Your task to perform on an android device: change the clock display to show seconds Image 0: 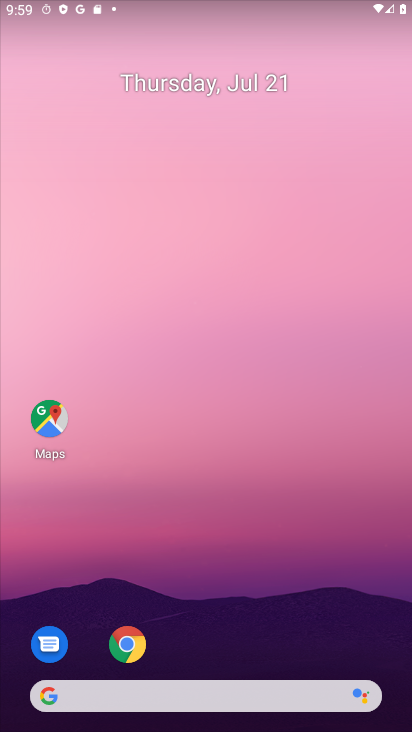
Step 0: press home button
Your task to perform on an android device: change the clock display to show seconds Image 1: 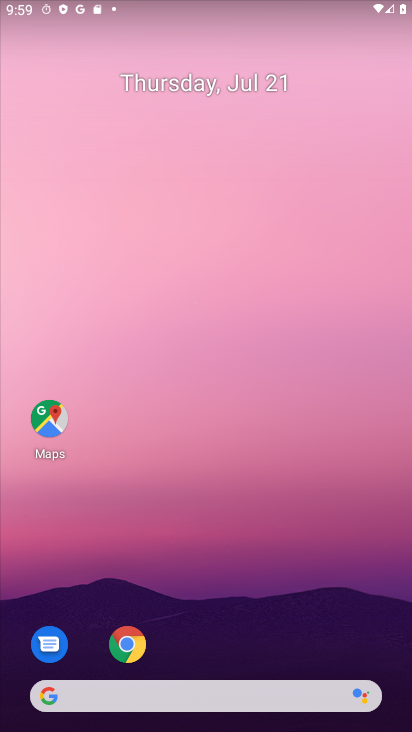
Step 1: drag from (221, 651) to (230, 100)
Your task to perform on an android device: change the clock display to show seconds Image 2: 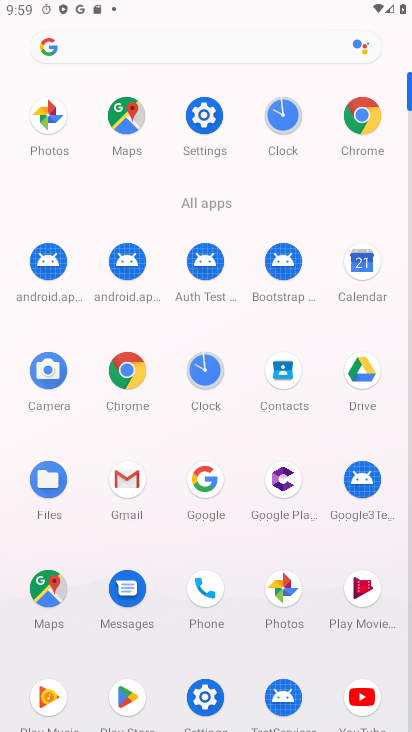
Step 2: click (278, 107)
Your task to perform on an android device: change the clock display to show seconds Image 3: 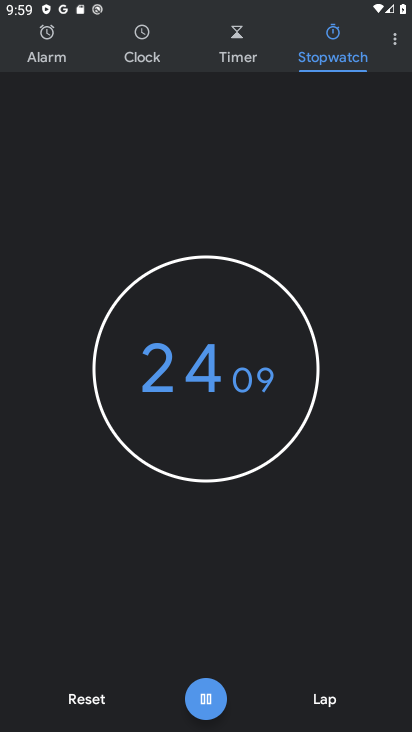
Step 3: click (92, 698)
Your task to perform on an android device: change the clock display to show seconds Image 4: 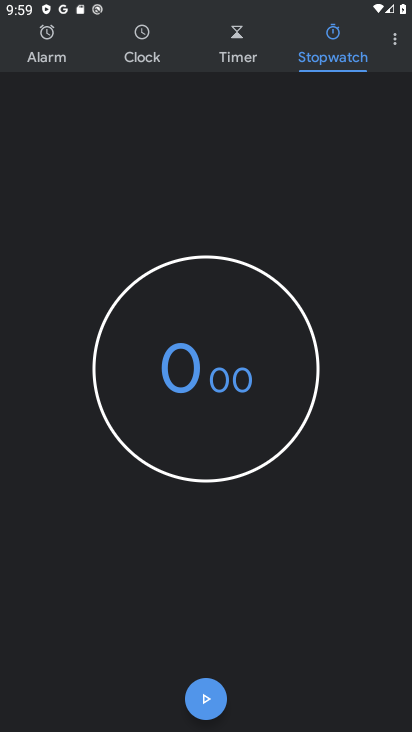
Step 4: click (394, 33)
Your task to perform on an android device: change the clock display to show seconds Image 5: 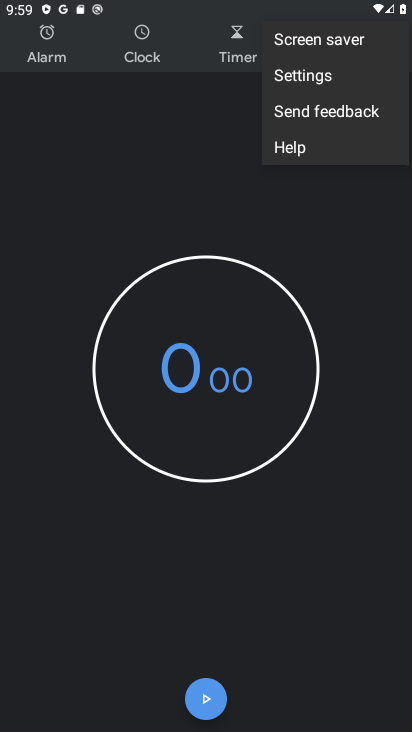
Step 5: click (338, 77)
Your task to perform on an android device: change the clock display to show seconds Image 6: 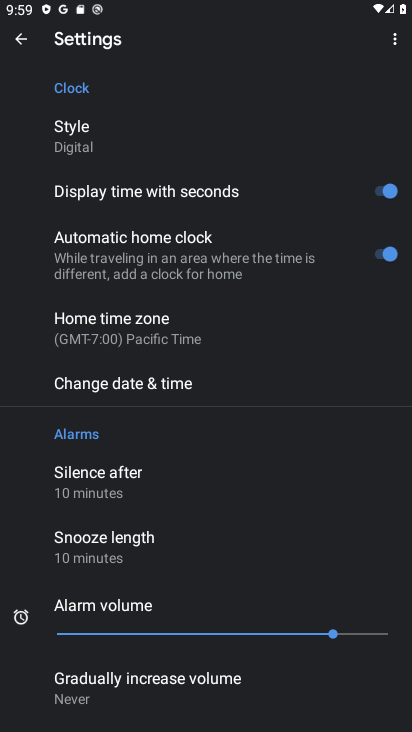
Step 6: click (379, 189)
Your task to perform on an android device: change the clock display to show seconds Image 7: 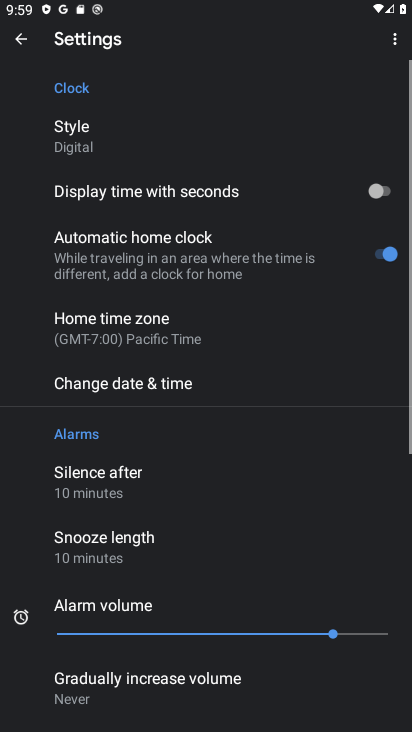
Step 7: task complete